Your task to perform on an android device: see sites visited before in the chrome app Image 0: 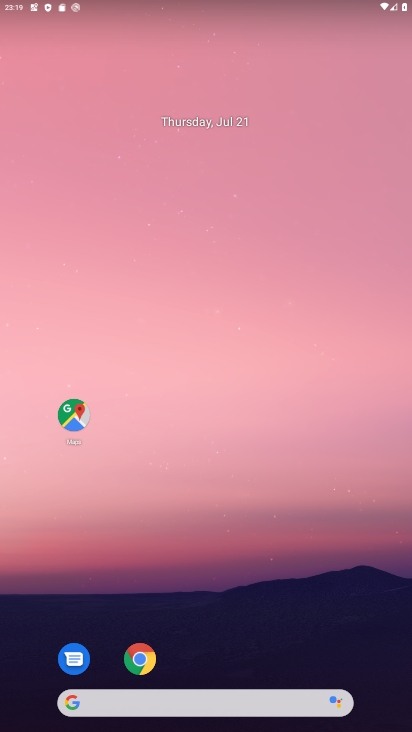
Step 0: drag from (255, 649) to (290, 165)
Your task to perform on an android device: see sites visited before in the chrome app Image 1: 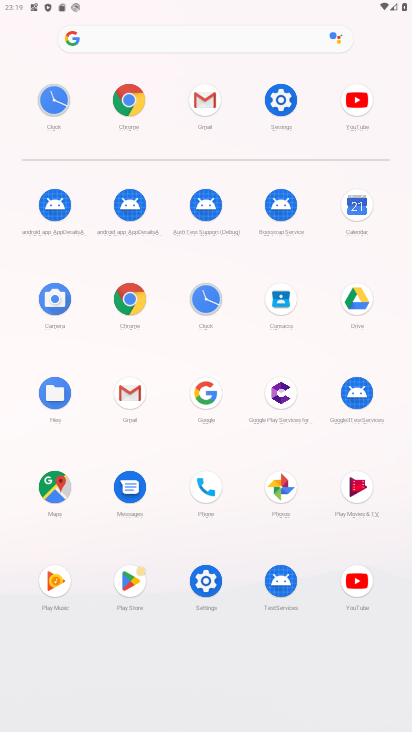
Step 1: click (126, 97)
Your task to perform on an android device: see sites visited before in the chrome app Image 2: 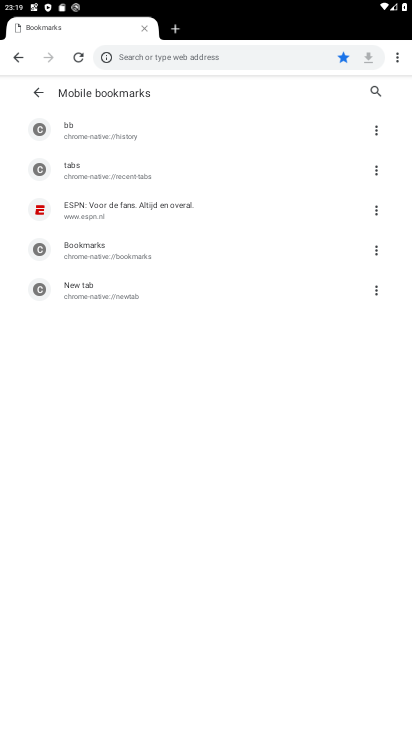
Step 2: drag from (397, 55) to (295, 261)
Your task to perform on an android device: see sites visited before in the chrome app Image 3: 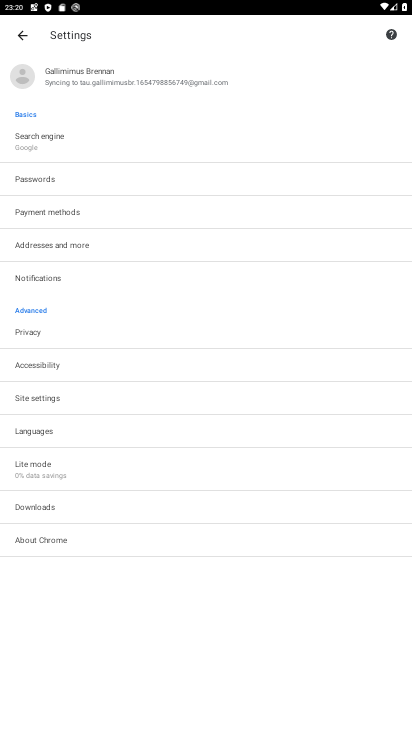
Step 3: click (25, 40)
Your task to perform on an android device: see sites visited before in the chrome app Image 4: 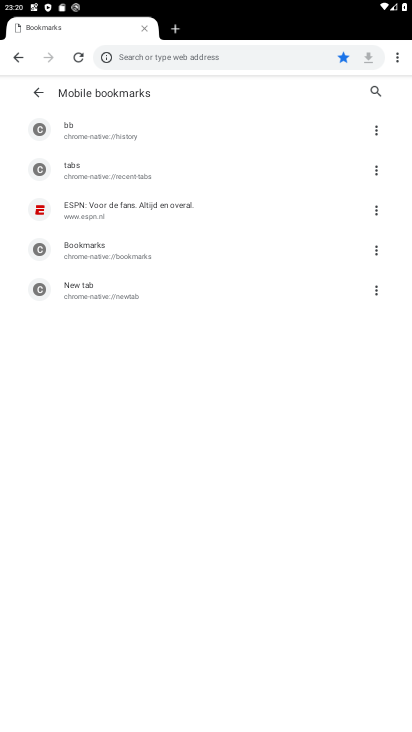
Step 4: task complete